Your task to perform on an android device: Open Chrome and go to settings Image 0: 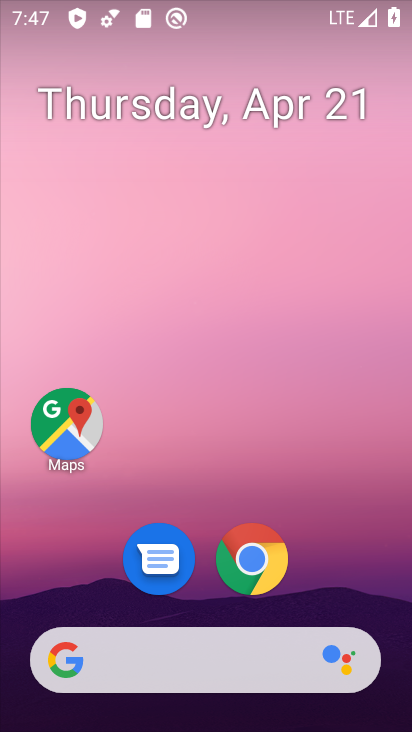
Step 0: drag from (360, 495) to (389, 126)
Your task to perform on an android device: Open Chrome and go to settings Image 1: 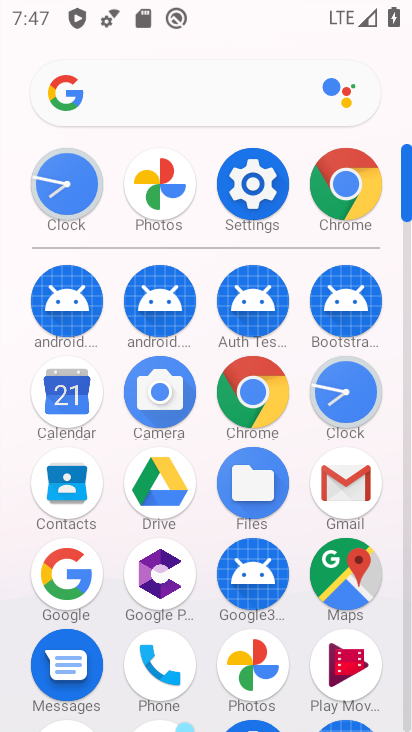
Step 1: click (268, 389)
Your task to perform on an android device: Open Chrome and go to settings Image 2: 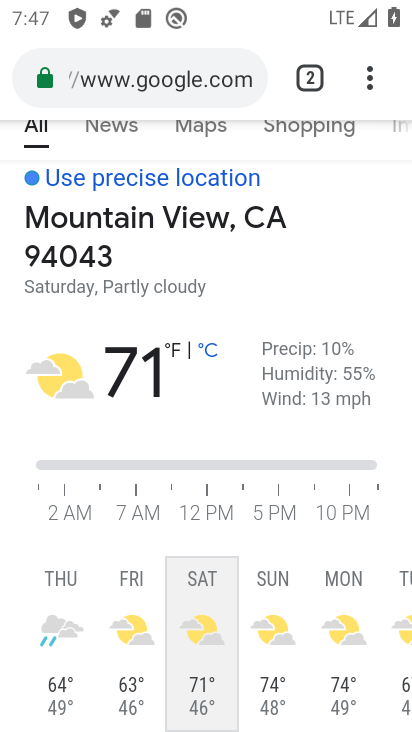
Step 2: click (225, 78)
Your task to perform on an android device: Open Chrome and go to settings Image 3: 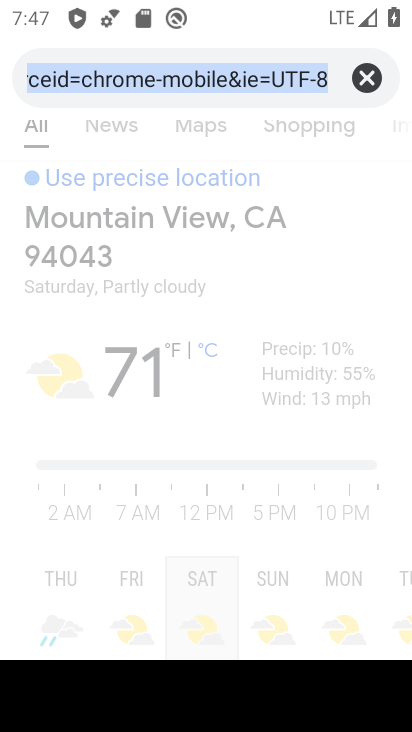
Step 3: click (360, 79)
Your task to perform on an android device: Open Chrome and go to settings Image 4: 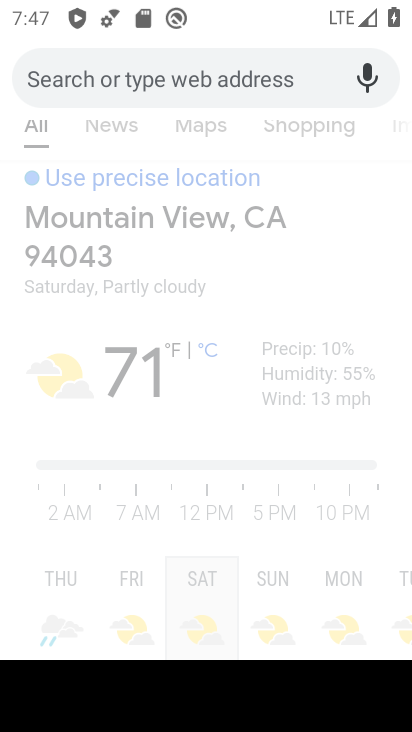
Step 4: click (376, 163)
Your task to perform on an android device: Open Chrome and go to settings Image 5: 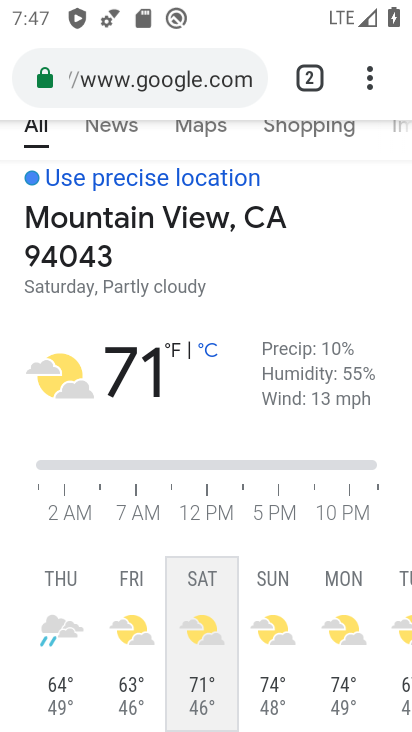
Step 5: task complete